Your task to perform on an android device: Go to Reddit.com Image 0: 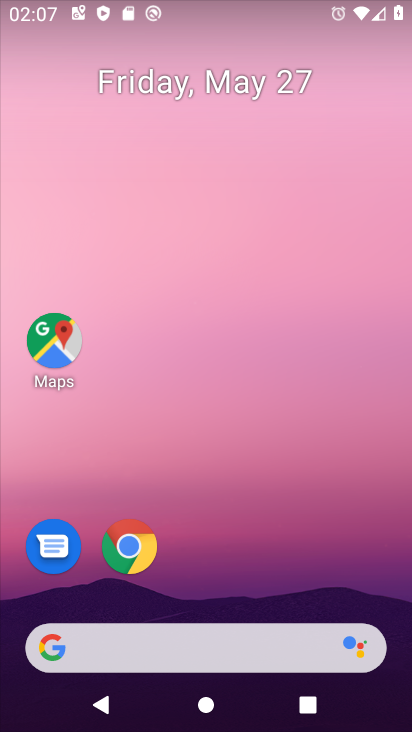
Step 0: drag from (256, 667) to (325, 23)
Your task to perform on an android device: Go to Reddit.com Image 1: 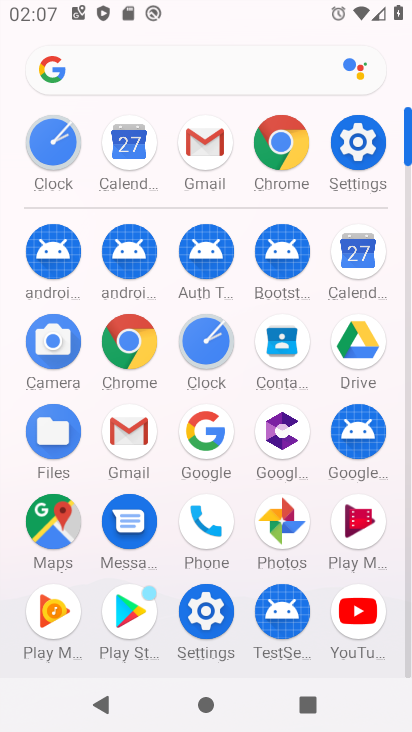
Step 1: click (257, 162)
Your task to perform on an android device: Go to Reddit.com Image 2: 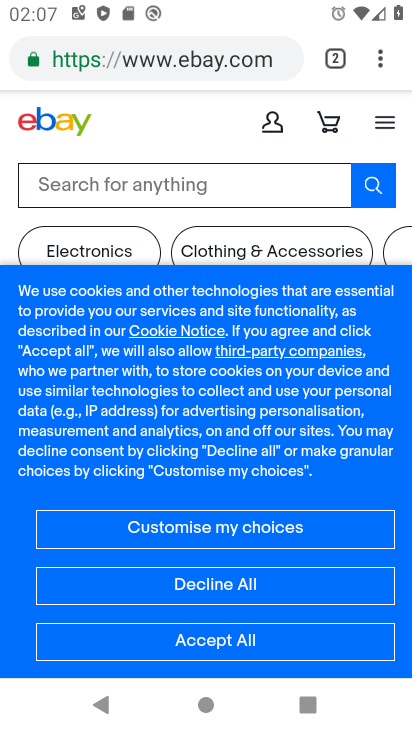
Step 2: click (166, 49)
Your task to perform on an android device: Go to Reddit.com Image 3: 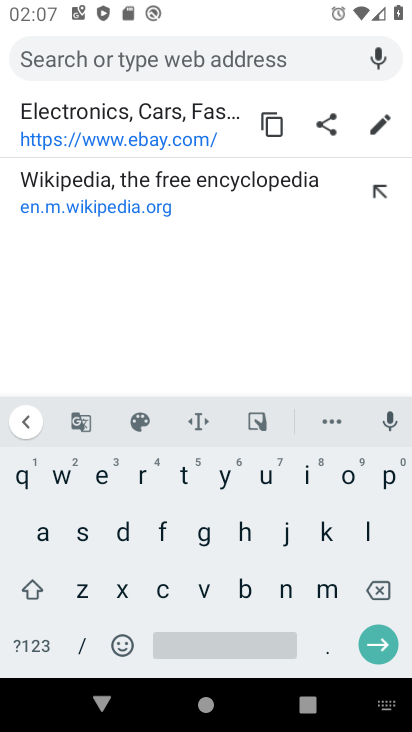
Step 3: click (136, 479)
Your task to perform on an android device: Go to Reddit.com Image 4: 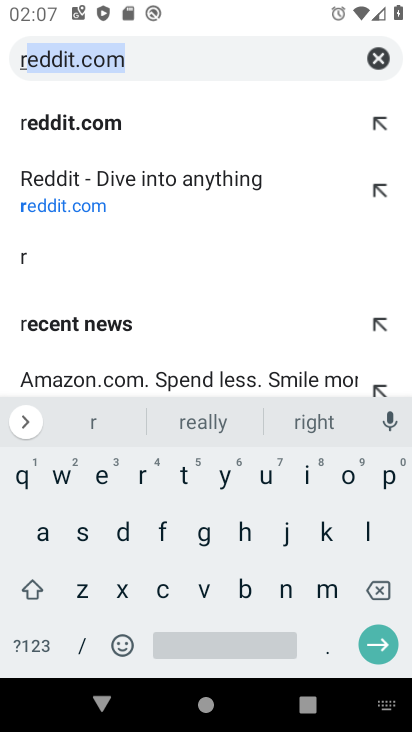
Step 4: click (130, 132)
Your task to perform on an android device: Go to Reddit.com Image 5: 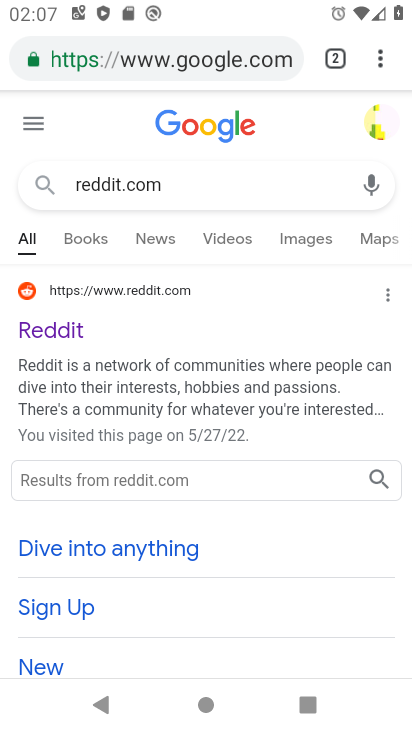
Step 5: click (48, 343)
Your task to perform on an android device: Go to Reddit.com Image 6: 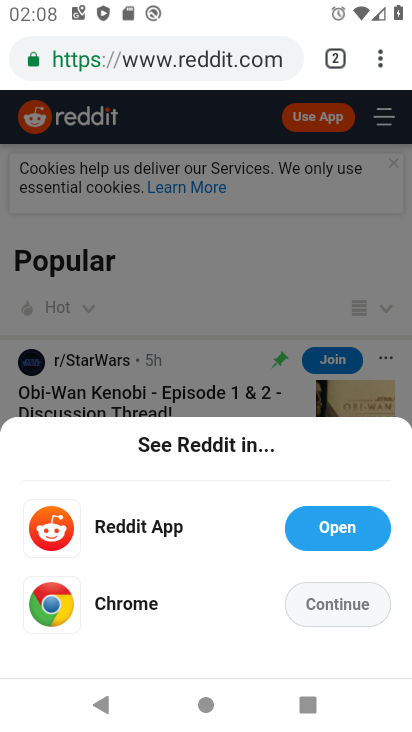
Step 6: click (196, 595)
Your task to perform on an android device: Go to Reddit.com Image 7: 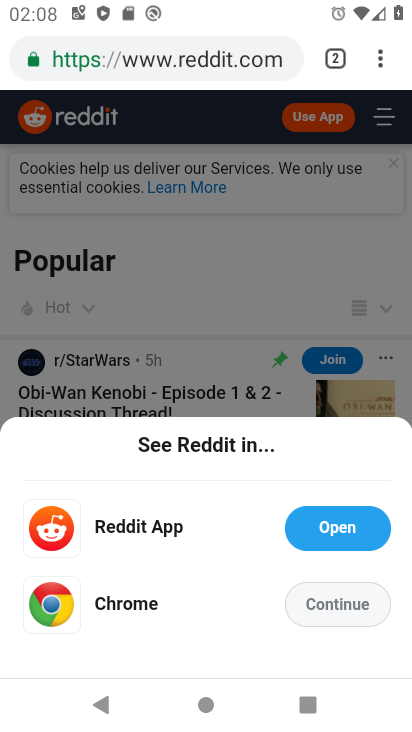
Step 7: click (352, 602)
Your task to perform on an android device: Go to Reddit.com Image 8: 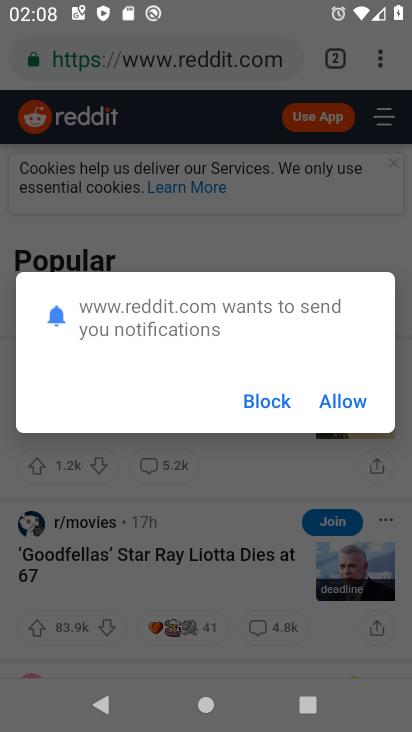
Step 8: click (258, 399)
Your task to perform on an android device: Go to Reddit.com Image 9: 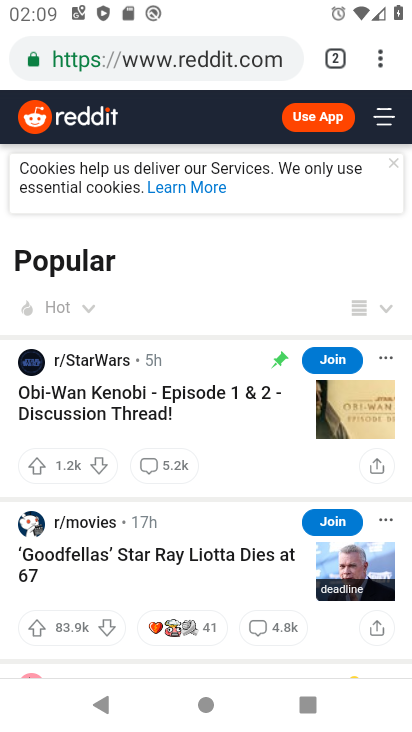
Step 9: task complete